Your task to perform on an android device: What's the weather? Image 0: 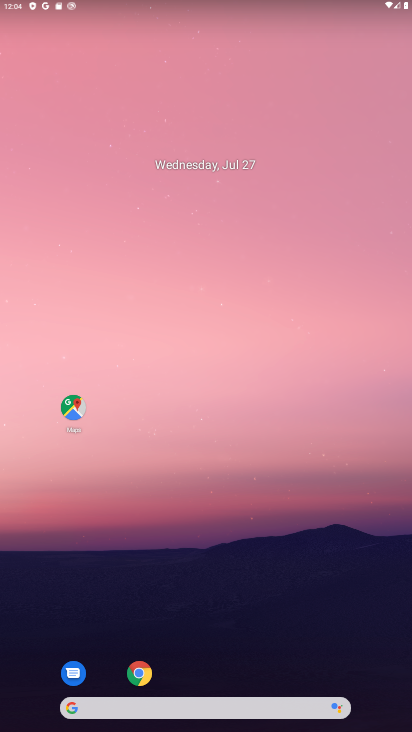
Step 0: click (181, 703)
Your task to perform on an android device: What's the weather? Image 1: 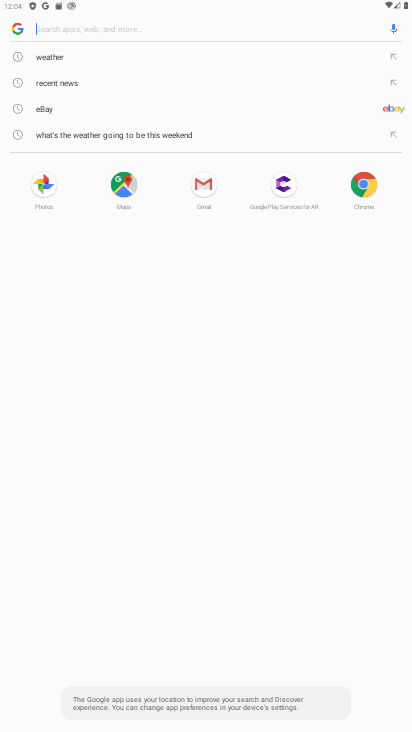
Step 1: click (40, 59)
Your task to perform on an android device: What's the weather? Image 2: 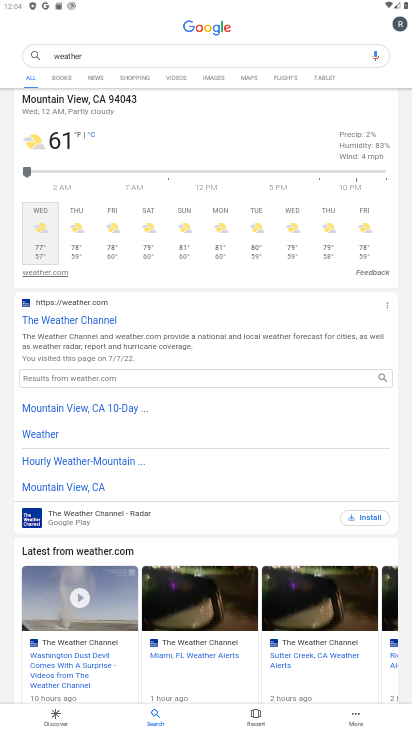
Step 2: task complete